Your task to perform on an android device: check the backup settings in the google photos Image 0: 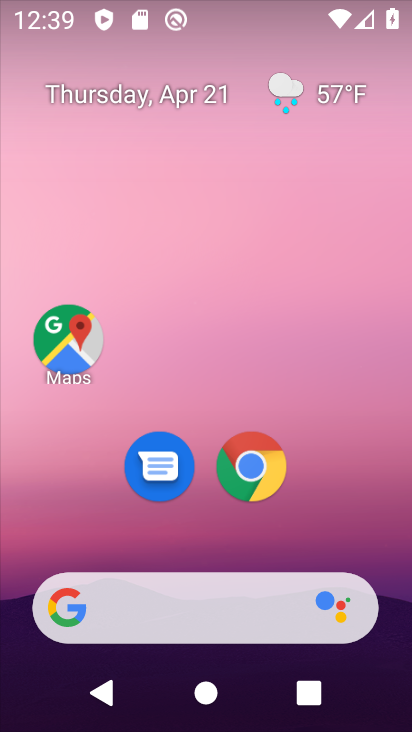
Step 0: drag from (363, 512) to (408, 175)
Your task to perform on an android device: check the backup settings in the google photos Image 1: 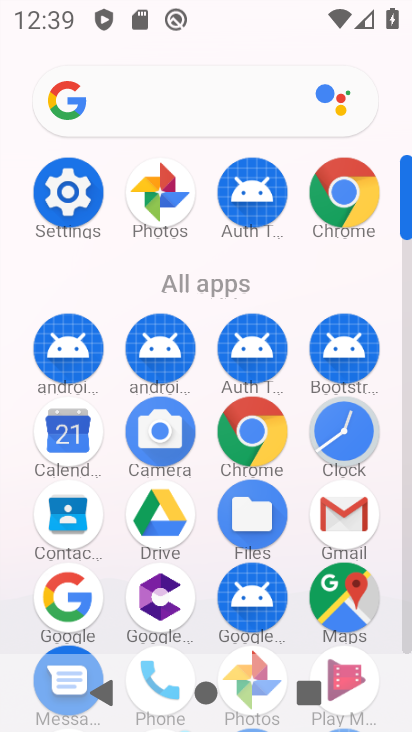
Step 1: click (165, 186)
Your task to perform on an android device: check the backup settings in the google photos Image 2: 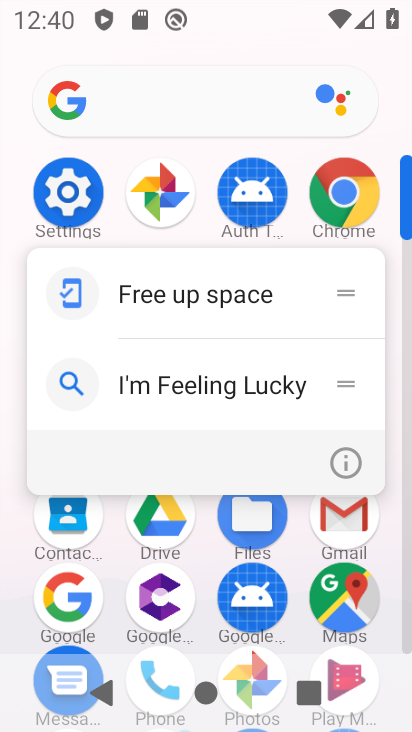
Step 2: click (165, 185)
Your task to perform on an android device: check the backup settings in the google photos Image 3: 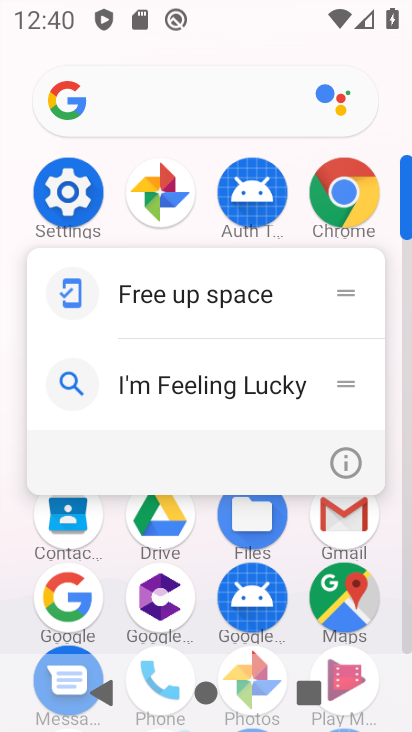
Step 3: click (165, 185)
Your task to perform on an android device: check the backup settings in the google photos Image 4: 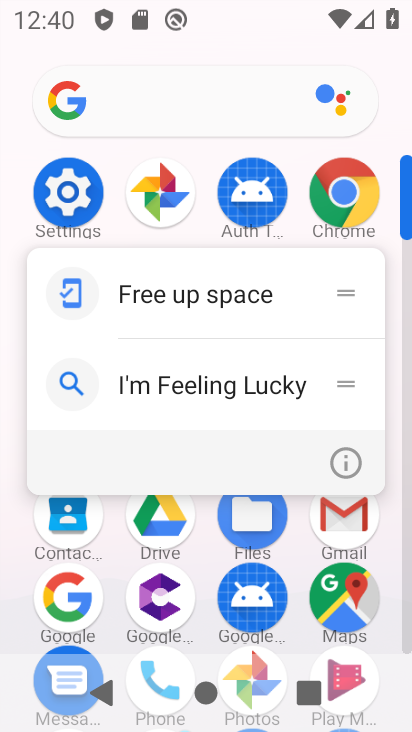
Step 4: click (165, 184)
Your task to perform on an android device: check the backup settings in the google photos Image 5: 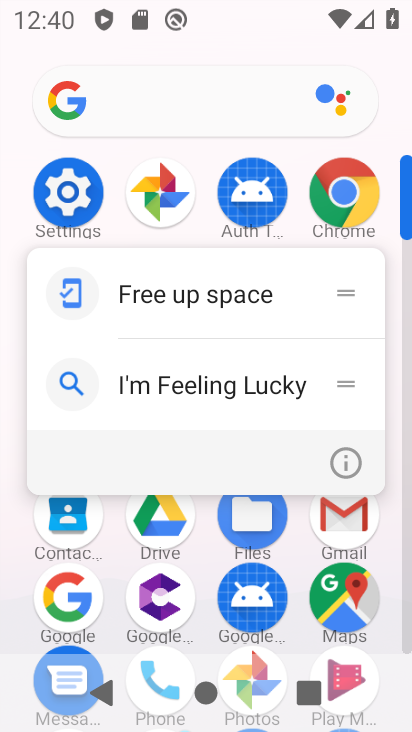
Step 5: click (165, 184)
Your task to perform on an android device: check the backup settings in the google photos Image 6: 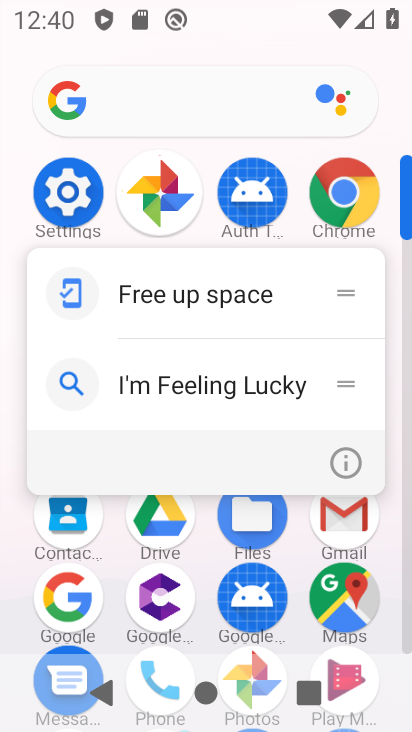
Step 6: click (165, 184)
Your task to perform on an android device: check the backup settings in the google photos Image 7: 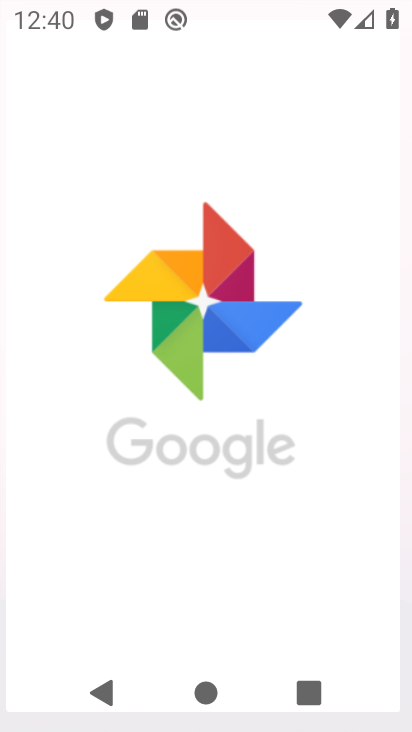
Step 7: click (152, 197)
Your task to perform on an android device: check the backup settings in the google photos Image 8: 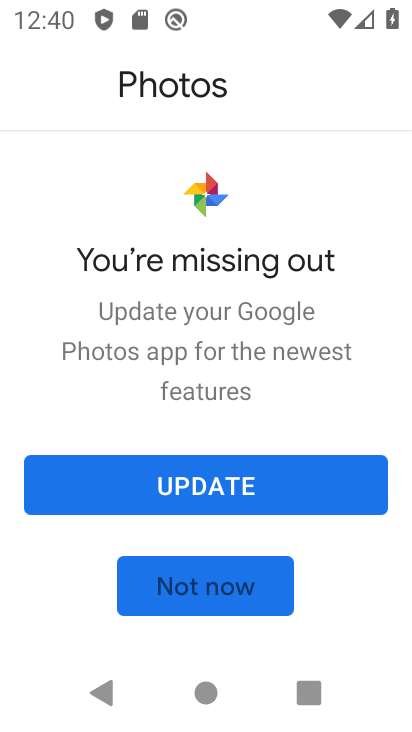
Step 8: click (230, 494)
Your task to perform on an android device: check the backup settings in the google photos Image 9: 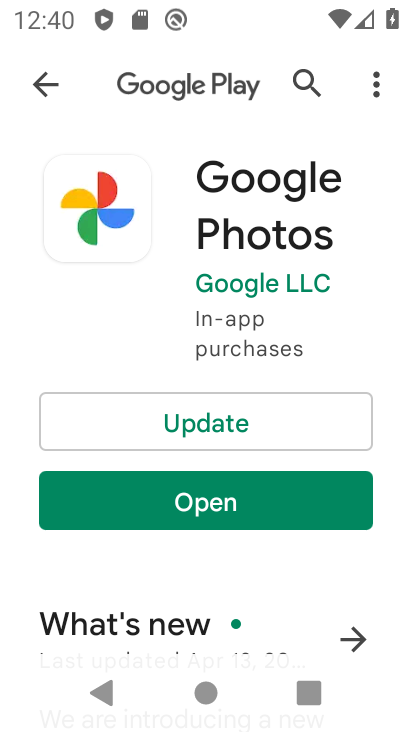
Step 9: click (226, 428)
Your task to perform on an android device: check the backup settings in the google photos Image 10: 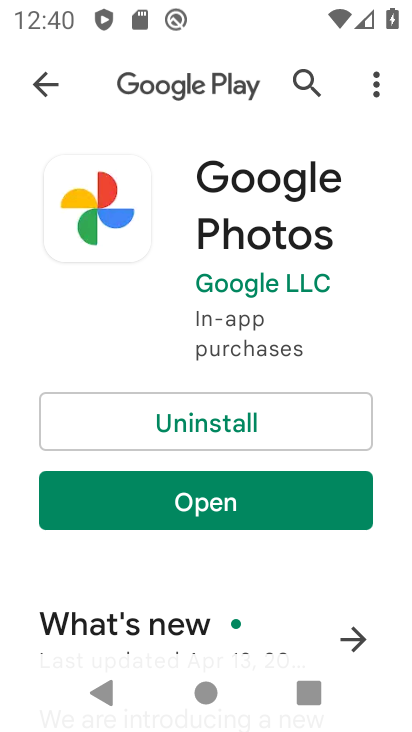
Step 10: click (230, 514)
Your task to perform on an android device: check the backup settings in the google photos Image 11: 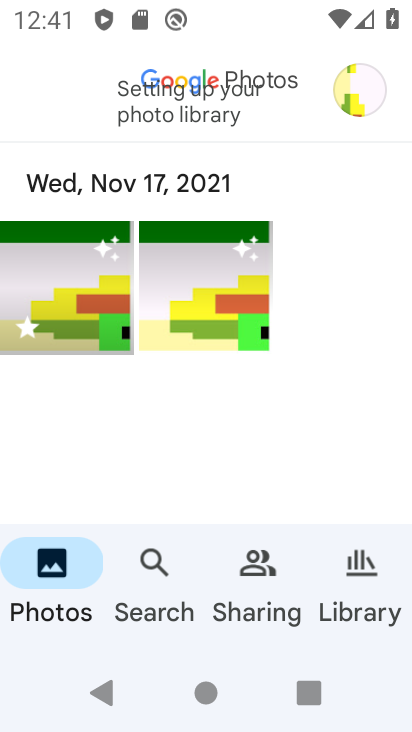
Step 11: task complete